Your task to perform on an android device: Open battery settings Image 0: 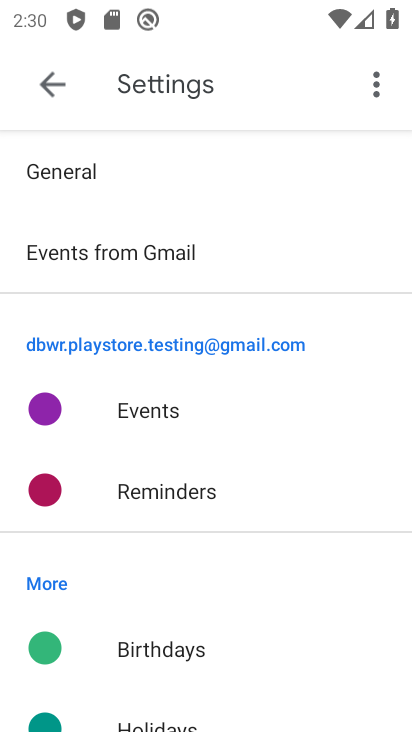
Step 0: press home button
Your task to perform on an android device: Open battery settings Image 1: 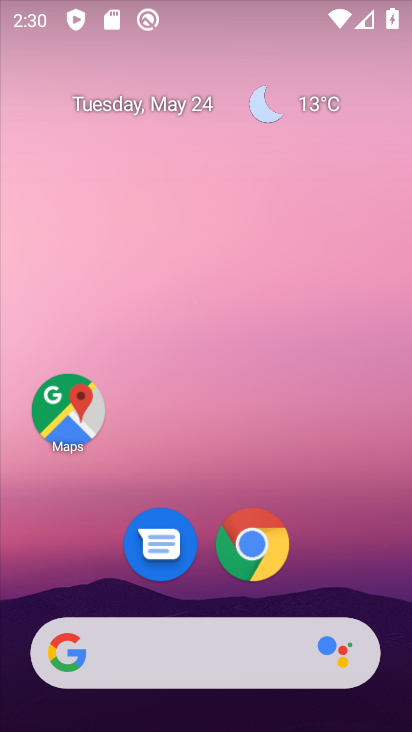
Step 1: drag from (335, 505) to (379, 4)
Your task to perform on an android device: Open battery settings Image 2: 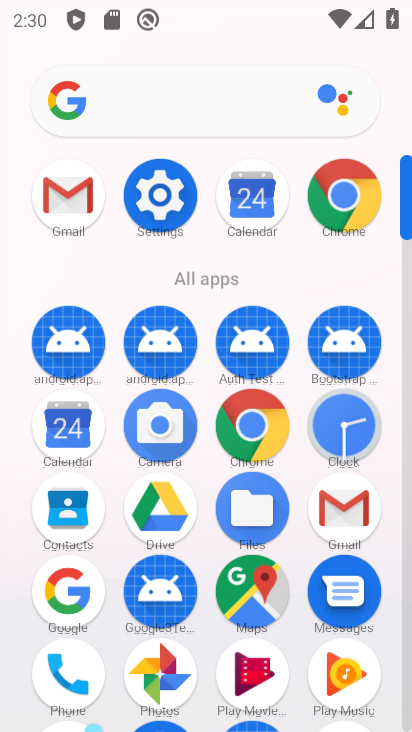
Step 2: drag from (142, 665) to (11, 198)
Your task to perform on an android device: Open battery settings Image 3: 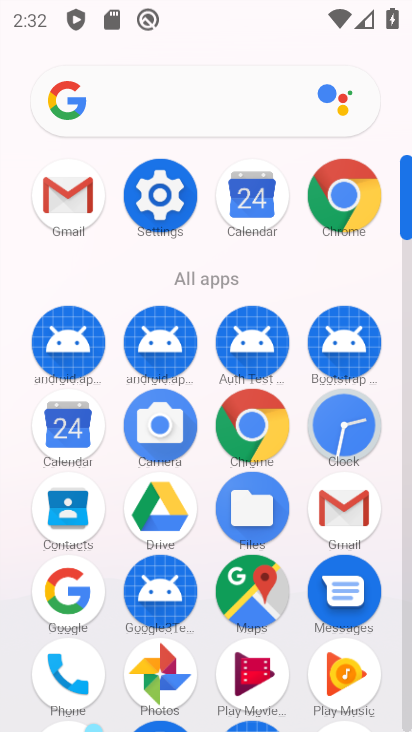
Step 3: click (155, 209)
Your task to perform on an android device: Open battery settings Image 4: 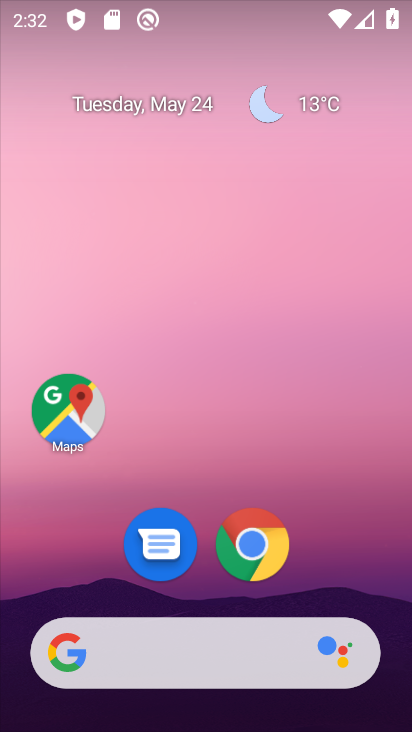
Step 4: drag from (341, 494) to (354, 371)
Your task to perform on an android device: Open battery settings Image 5: 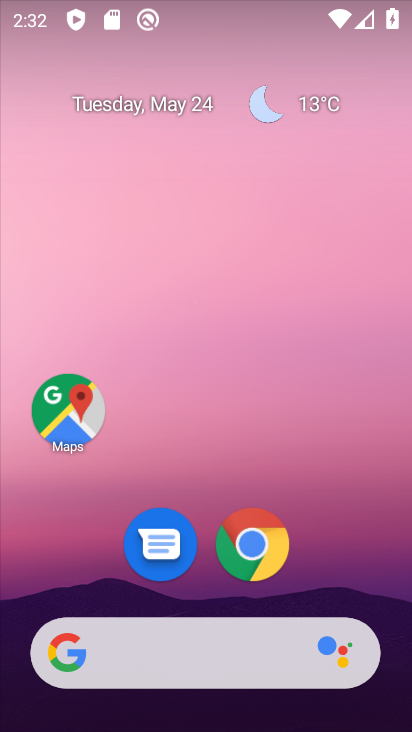
Step 5: drag from (380, 323) to (373, 68)
Your task to perform on an android device: Open battery settings Image 6: 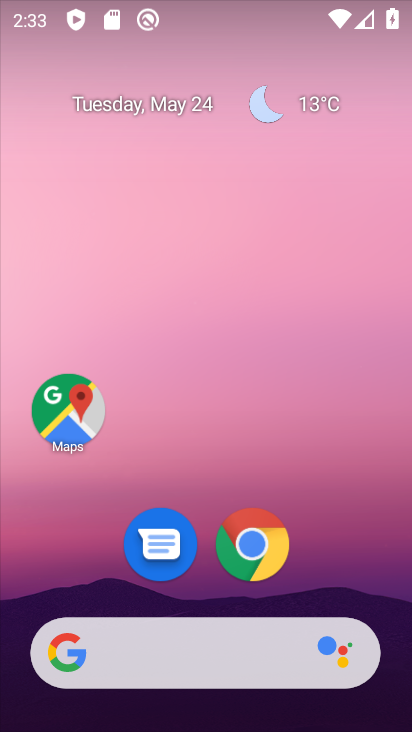
Step 6: drag from (339, 577) to (407, 49)
Your task to perform on an android device: Open battery settings Image 7: 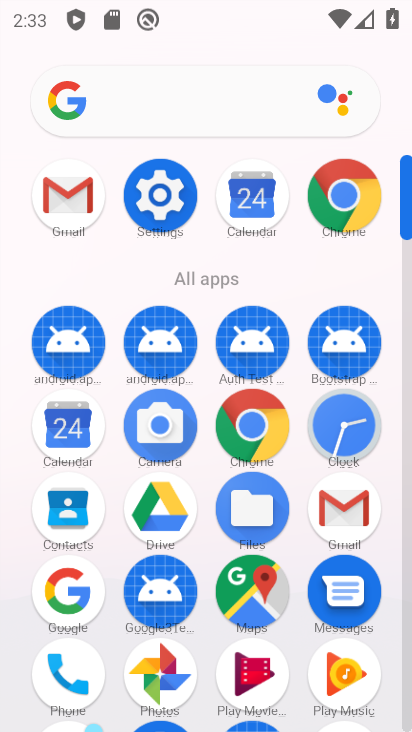
Step 7: click (159, 209)
Your task to perform on an android device: Open battery settings Image 8: 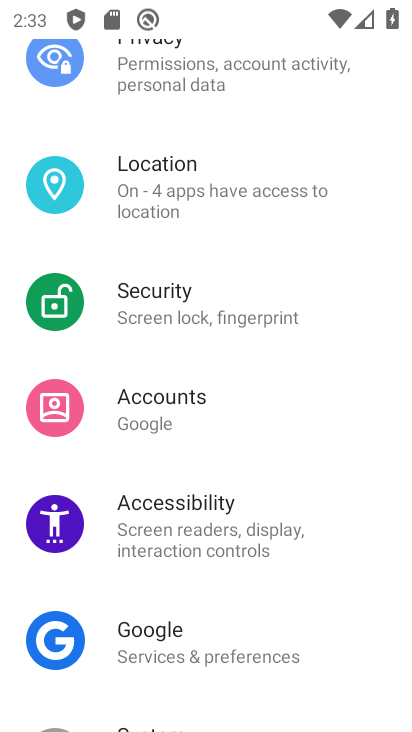
Step 8: drag from (192, 510) to (292, 76)
Your task to perform on an android device: Open battery settings Image 9: 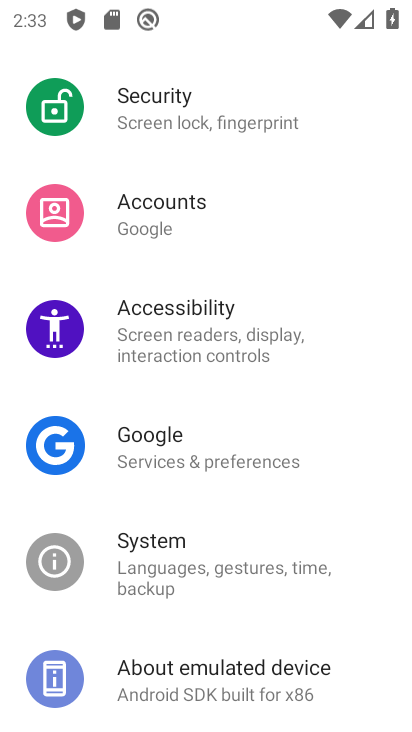
Step 9: drag from (167, 541) to (236, 220)
Your task to perform on an android device: Open battery settings Image 10: 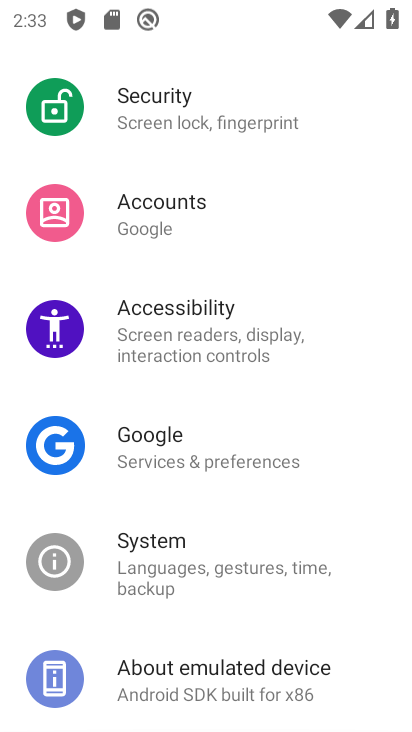
Step 10: drag from (240, 261) to (177, 669)
Your task to perform on an android device: Open battery settings Image 11: 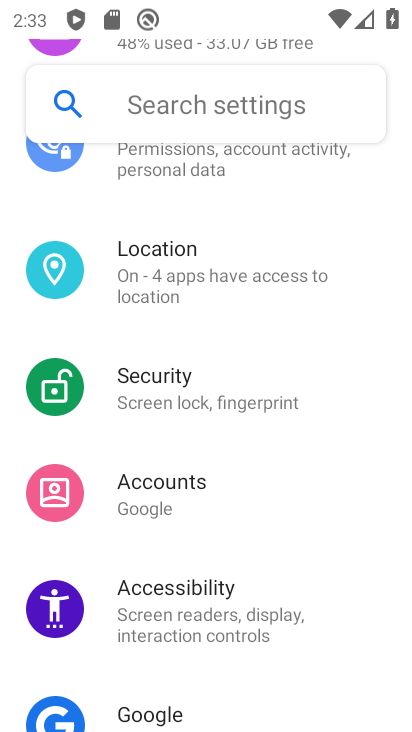
Step 11: drag from (234, 232) to (201, 618)
Your task to perform on an android device: Open battery settings Image 12: 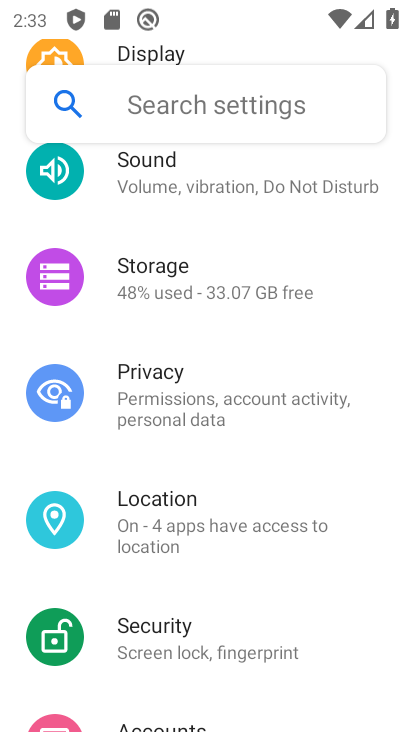
Step 12: drag from (281, 180) to (241, 578)
Your task to perform on an android device: Open battery settings Image 13: 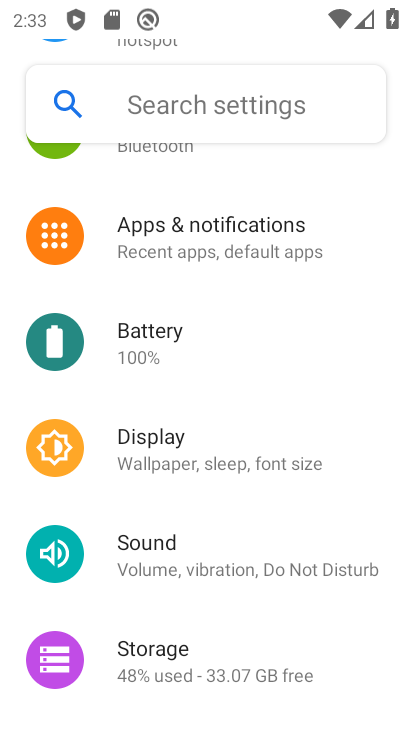
Step 13: click (176, 351)
Your task to perform on an android device: Open battery settings Image 14: 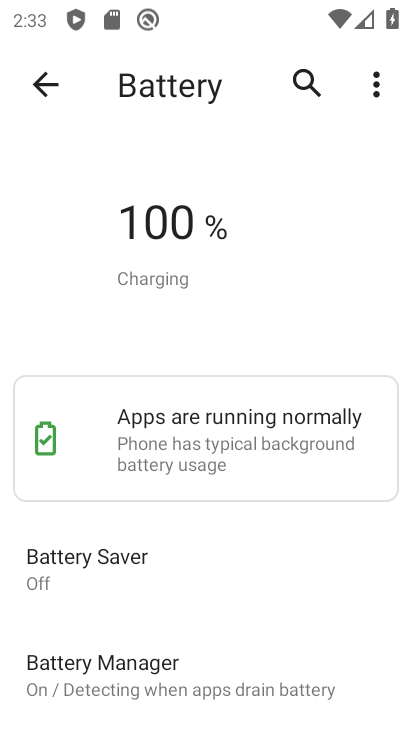
Step 14: task complete